Your task to perform on an android device: find which apps use the phone's location Image 0: 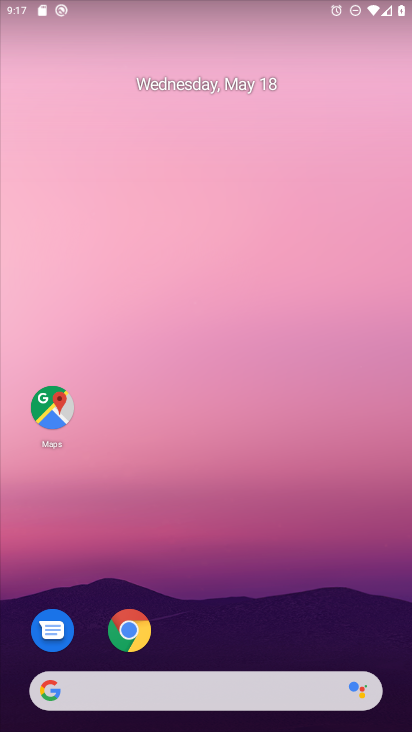
Step 0: drag from (197, 666) to (60, 57)
Your task to perform on an android device: find which apps use the phone's location Image 1: 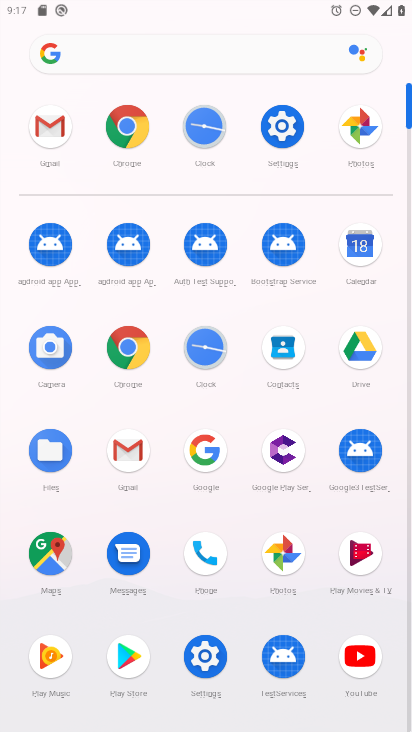
Step 1: click (270, 128)
Your task to perform on an android device: find which apps use the phone's location Image 2: 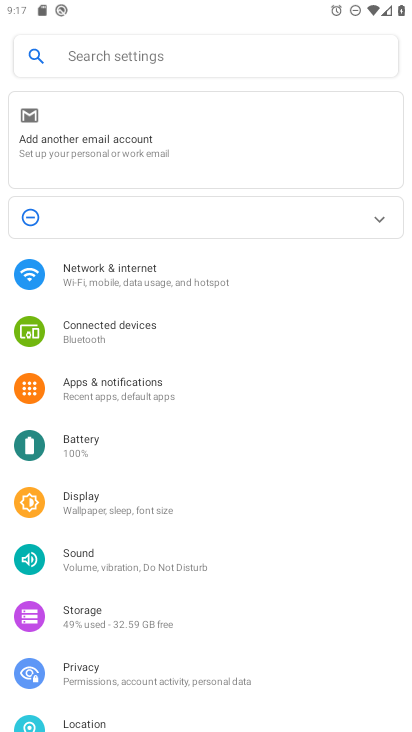
Step 2: drag from (140, 589) to (122, 276)
Your task to perform on an android device: find which apps use the phone's location Image 3: 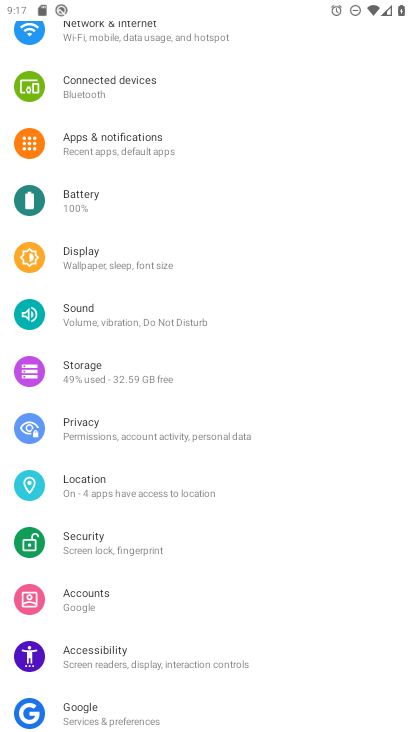
Step 3: click (78, 489)
Your task to perform on an android device: find which apps use the phone's location Image 4: 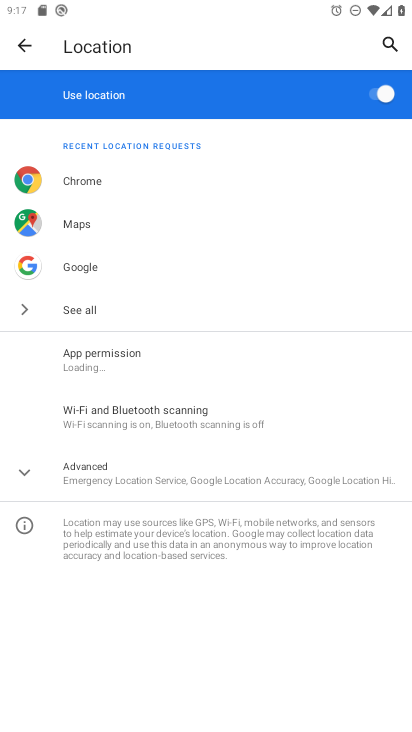
Step 4: click (107, 380)
Your task to perform on an android device: find which apps use the phone's location Image 5: 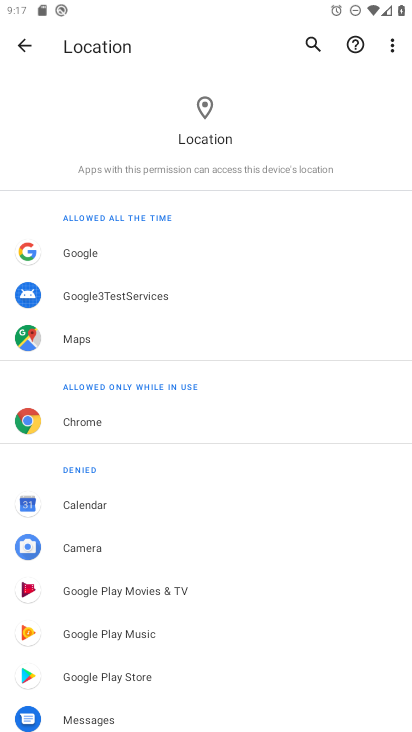
Step 5: task complete